Your task to perform on an android device: Open wifi settings Image 0: 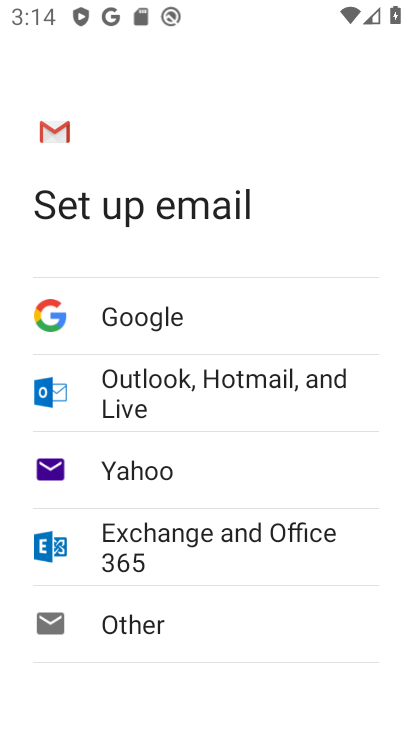
Step 0: press back button
Your task to perform on an android device: Open wifi settings Image 1: 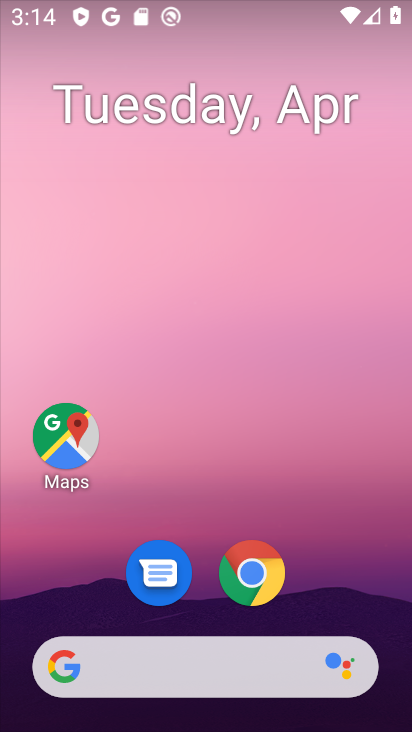
Step 1: drag from (198, 625) to (295, 107)
Your task to perform on an android device: Open wifi settings Image 2: 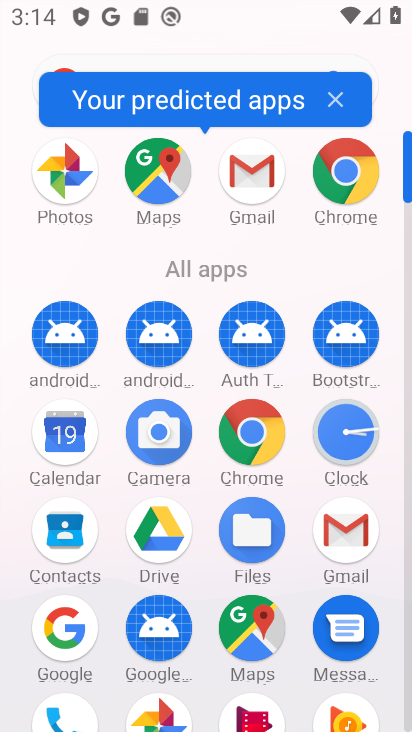
Step 2: drag from (143, 559) to (229, 218)
Your task to perform on an android device: Open wifi settings Image 3: 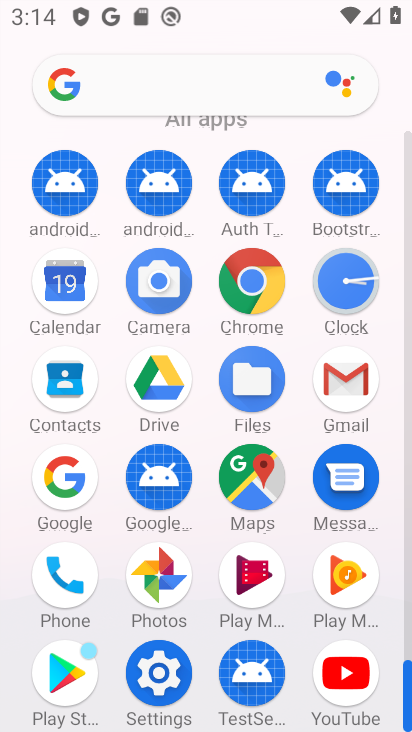
Step 3: click (154, 680)
Your task to perform on an android device: Open wifi settings Image 4: 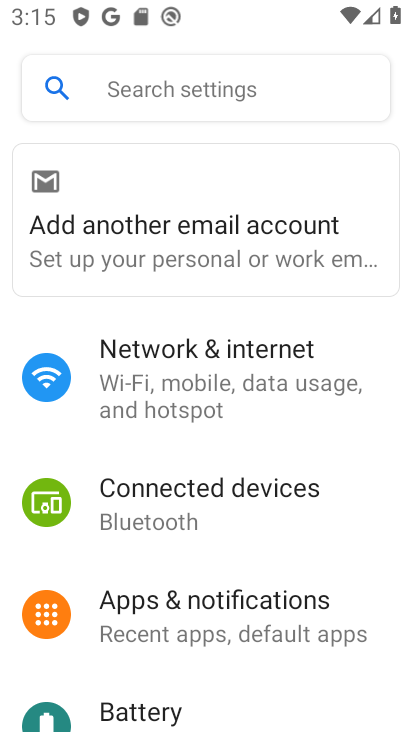
Step 4: click (276, 390)
Your task to perform on an android device: Open wifi settings Image 5: 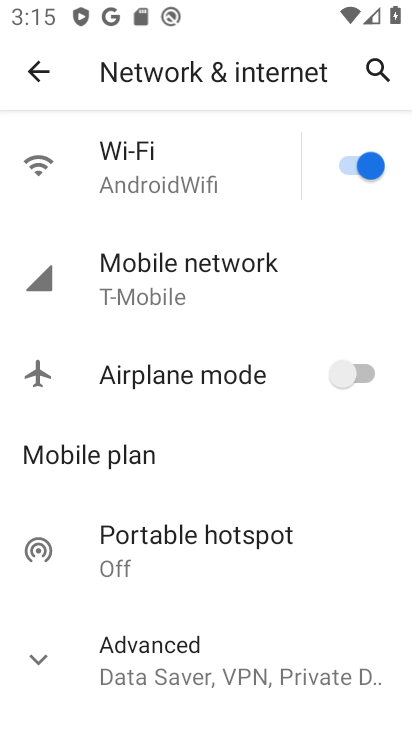
Step 5: click (188, 196)
Your task to perform on an android device: Open wifi settings Image 6: 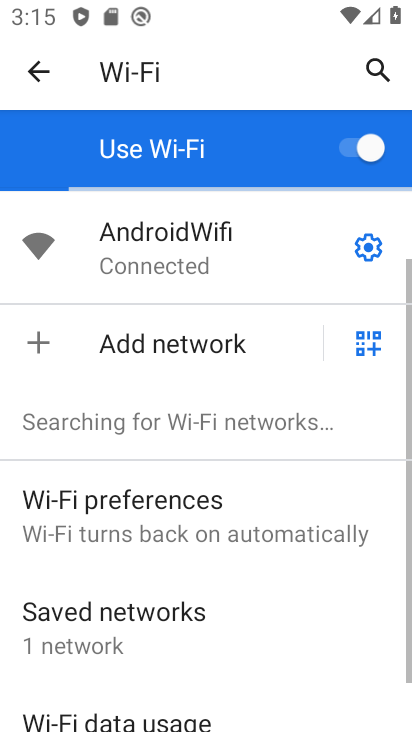
Step 6: task complete